Your task to perform on an android device: open app "Adobe Acrobat Reader: Edit PDF" Image 0: 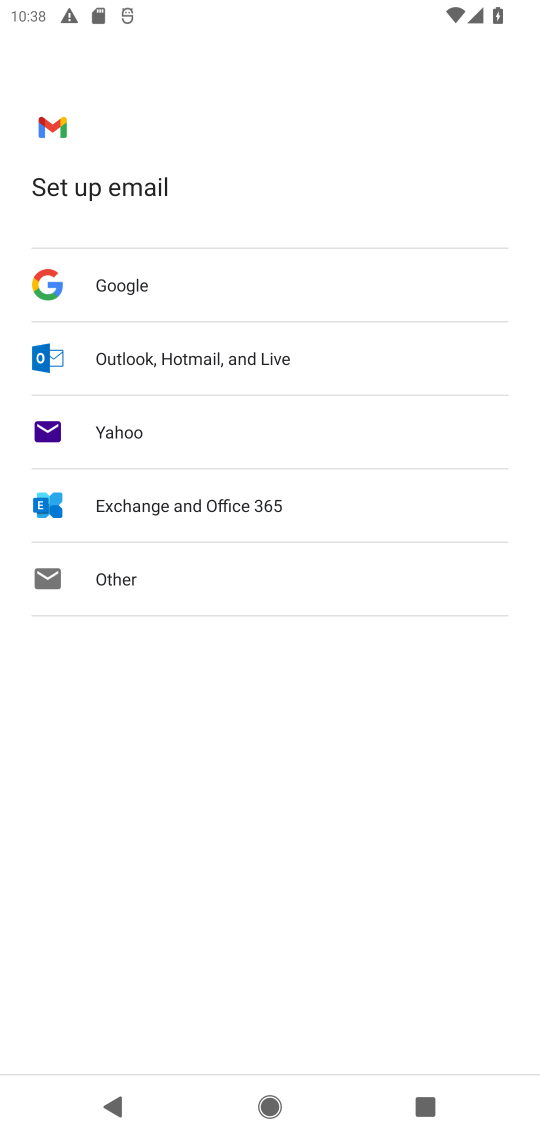
Step 0: press home button
Your task to perform on an android device: open app "Adobe Acrobat Reader: Edit PDF" Image 1: 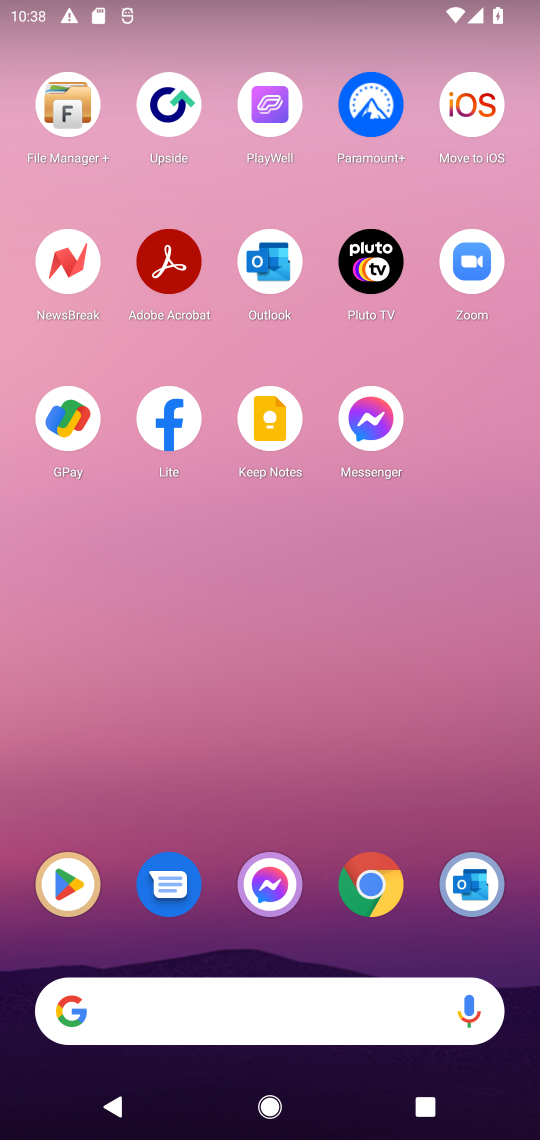
Step 1: click (56, 899)
Your task to perform on an android device: open app "Adobe Acrobat Reader: Edit PDF" Image 2: 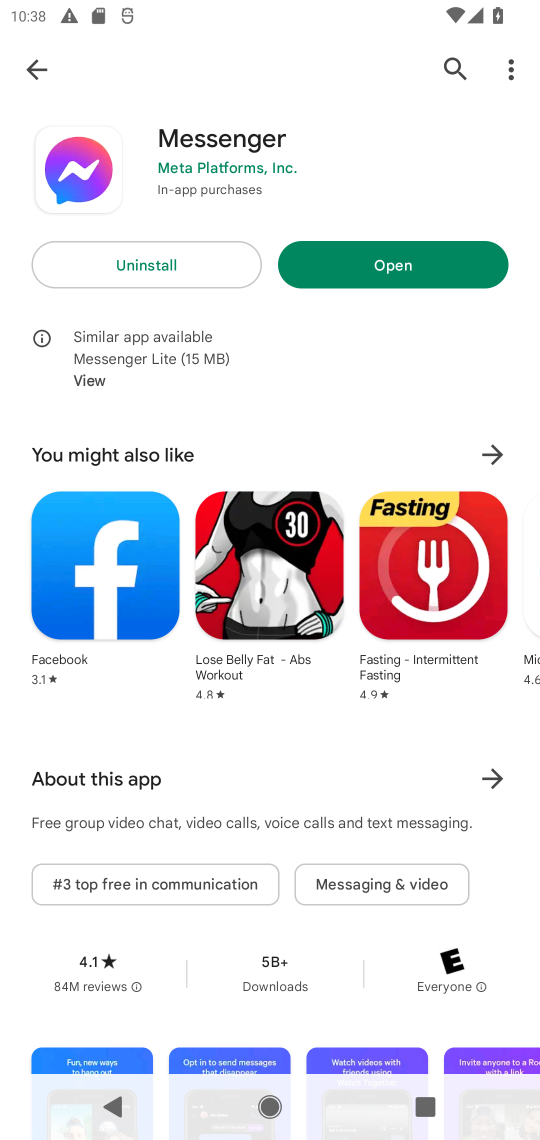
Step 2: click (440, 68)
Your task to perform on an android device: open app "Adobe Acrobat Reader: Edit PDF" Image 3: 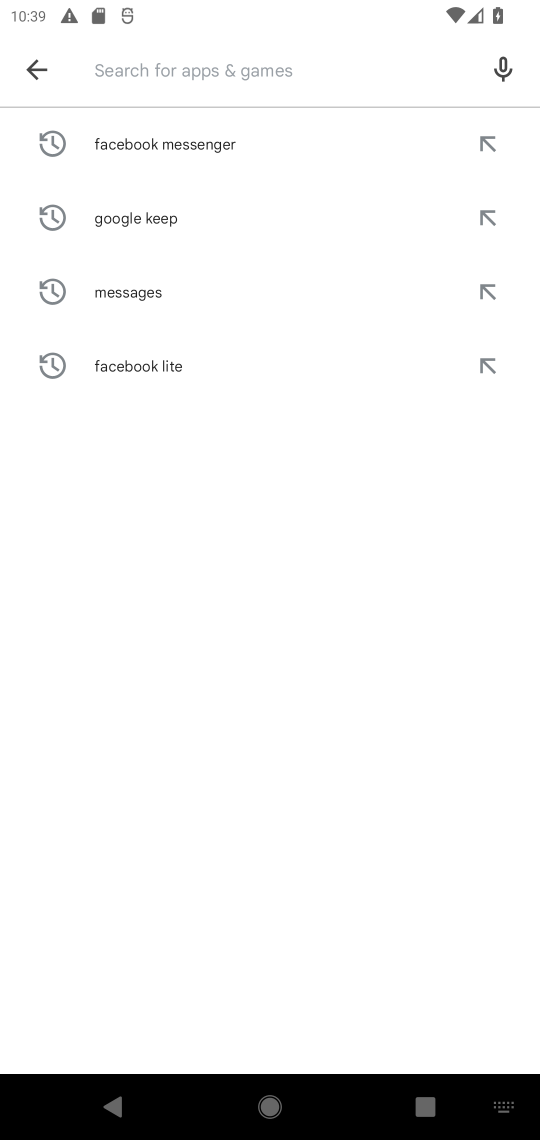
Step 3: type "adobe acrobat reader: edit pdf"
Your task to perform on an android device: open app "Adobe Acrobat Reader: Edit PDF" Image 4: 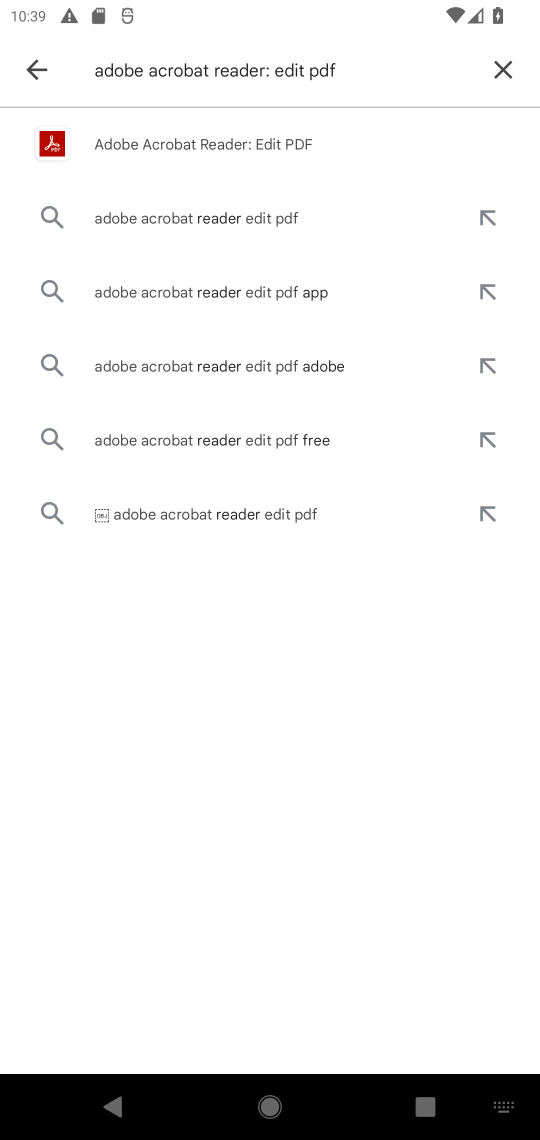
Step 4: click (224, 137)
Your task to perform on an android device: open app "Adobe Acrobat Reader: Edit PDF" Image 5: 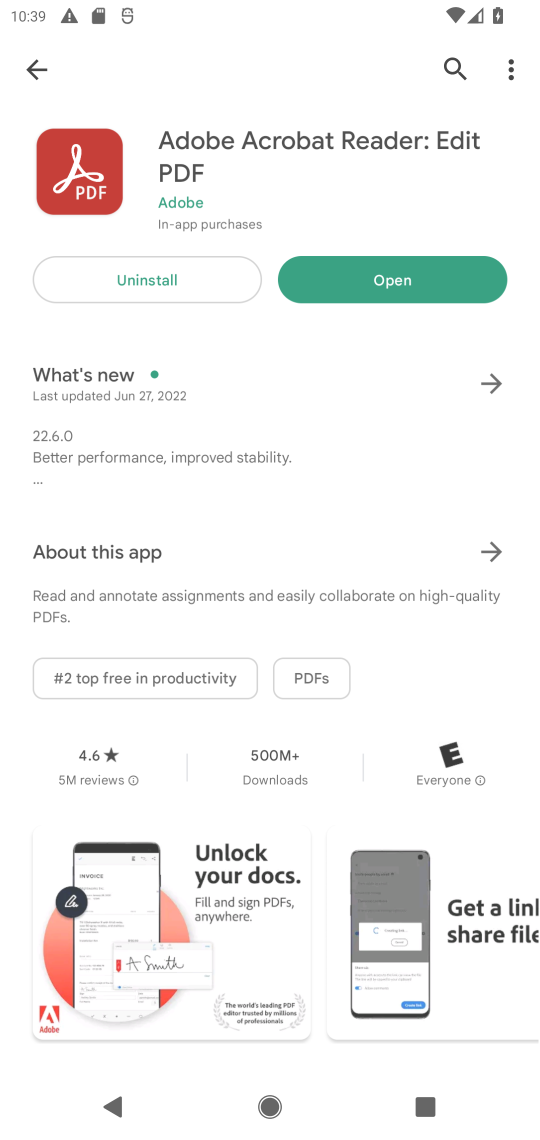
Step 5: click (246, 132)
Your task to perform on an android device: open app "Adobe Acrobat Reader: Edit PDF" Image 6: 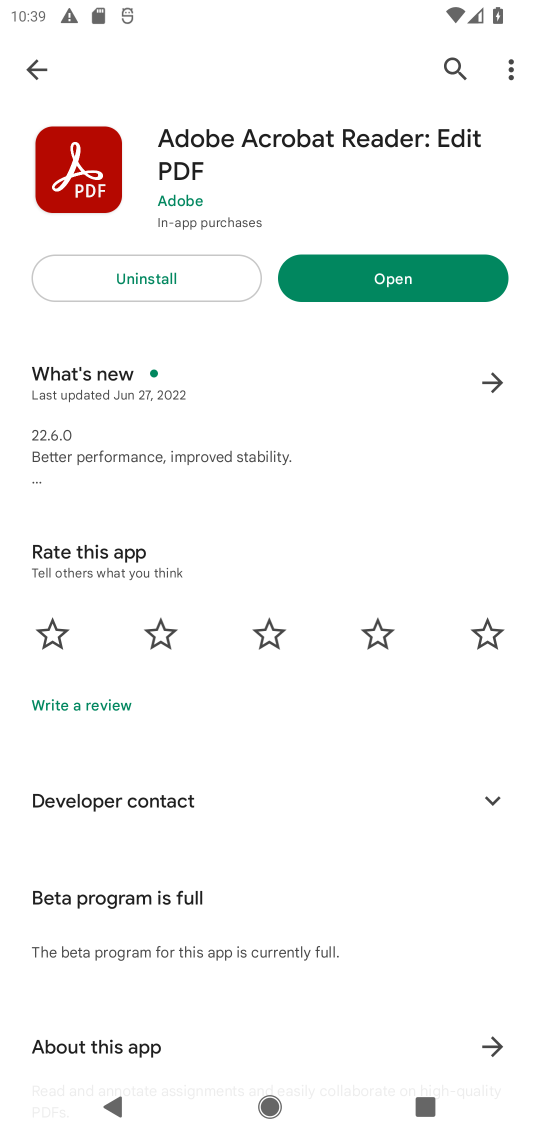
Step 6: click (377, 260)
Your task to perform on an android device: open app "Adobe Acrobat Reader: Edit PDF" Image 7: 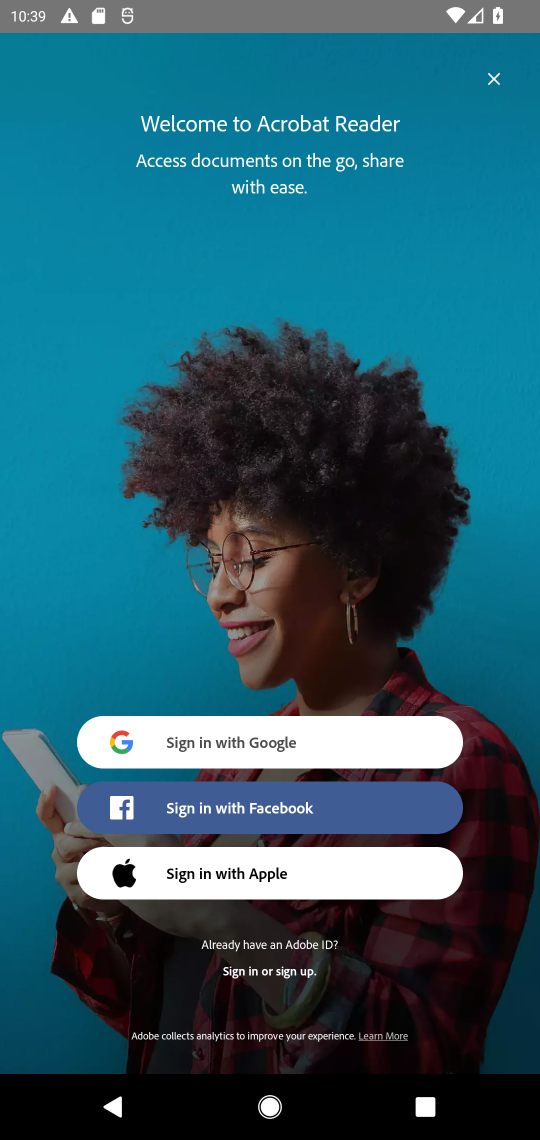
Step 7: task complete